Your task to perform on an android device: Go to privacy settings Image 0: 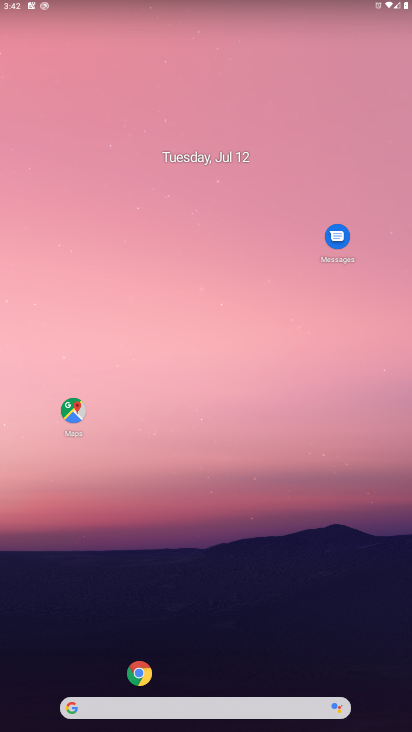
Step 0: drag from (115, 549) to (351, 46)
Your task to perform on an android device: Go to privacy settings Image 1: 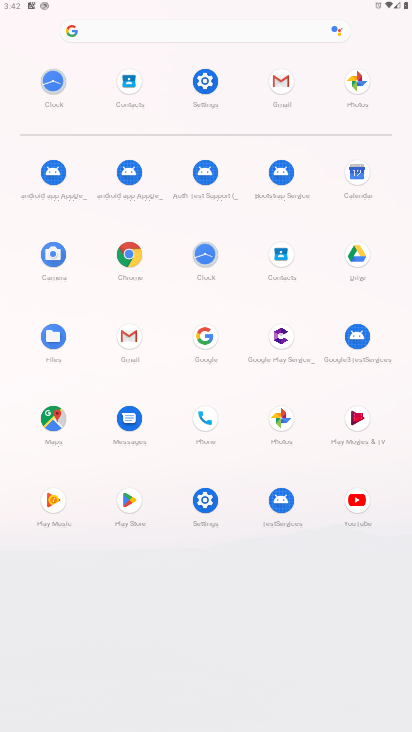
Step 1: click (203, 513)
Your task to perform on an android device: Go to privacy settings Image 2: 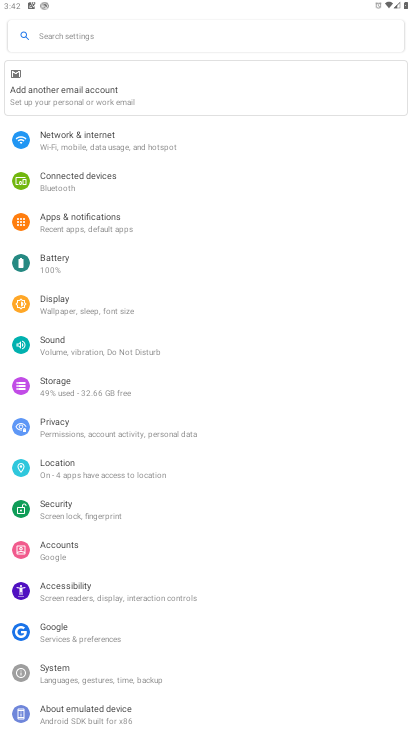
Step 2: click (77, 146)
Your task to perform on an android device: Go to privacy settings Image 3: 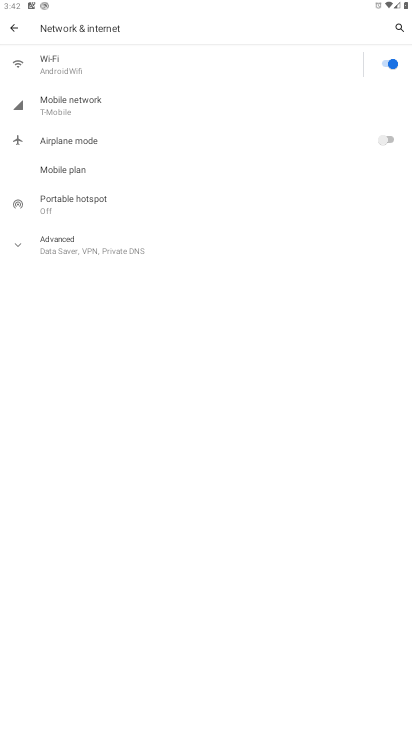
Step 3: click (11, 27)
Your task to perform on an android device: Go to privacy settings Image 4: 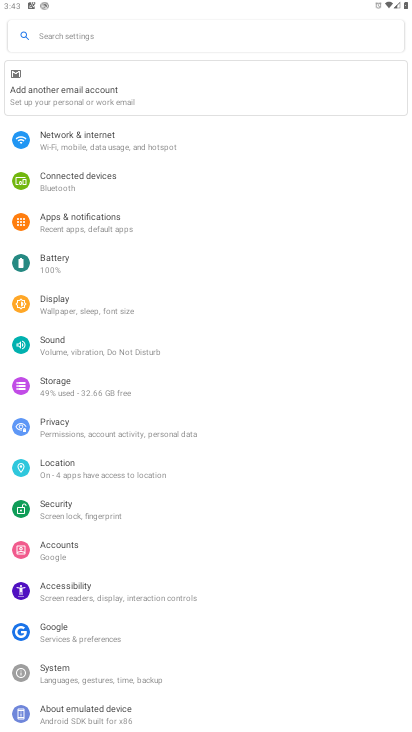
Step 4: click (112, 430)
Your task to perform on an android device: Go to privacy settings Image 5: 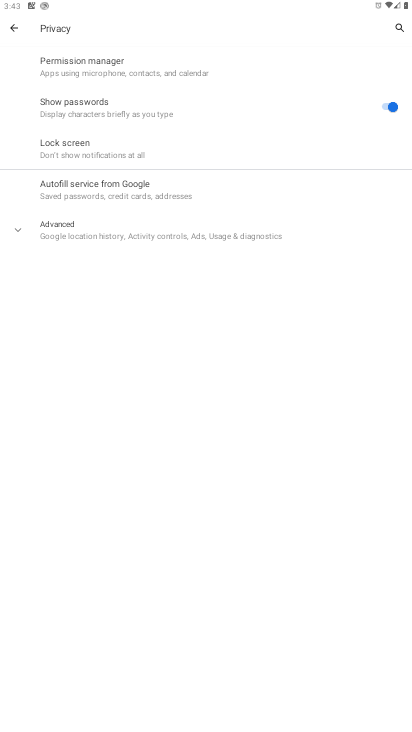
Step 5: task complete